Your task to perform on an android device: see creations saved in the google photos Image 0: 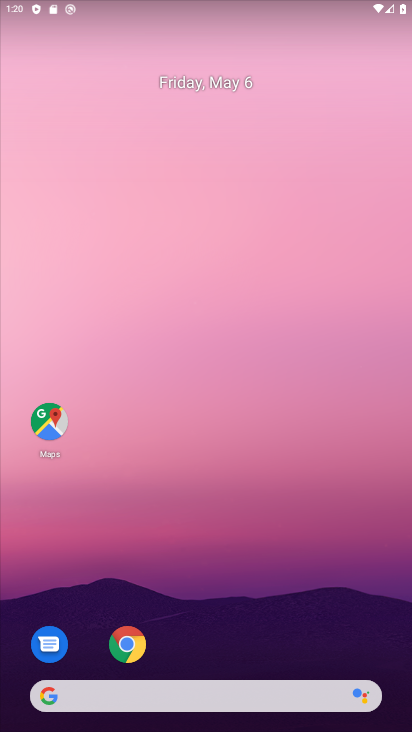
Step 0: drag from (218, 652) to (310, 114)
Your task to perform on an android device: see creations saved in the google photos Image 1: 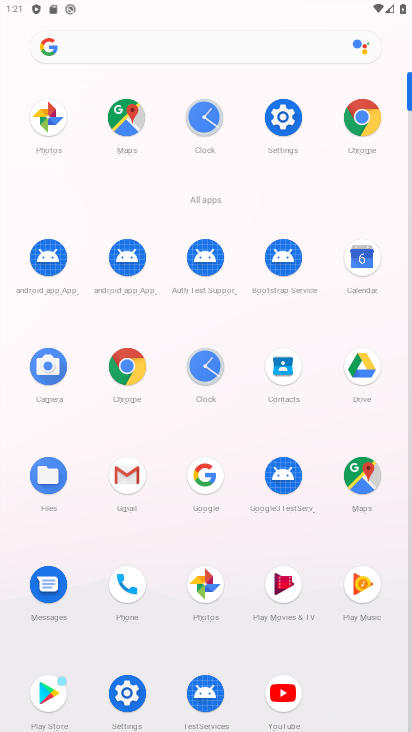
Step 1: click (208, 583)
Your task to perform on an android device: see creations saved in the google photos Image 2: 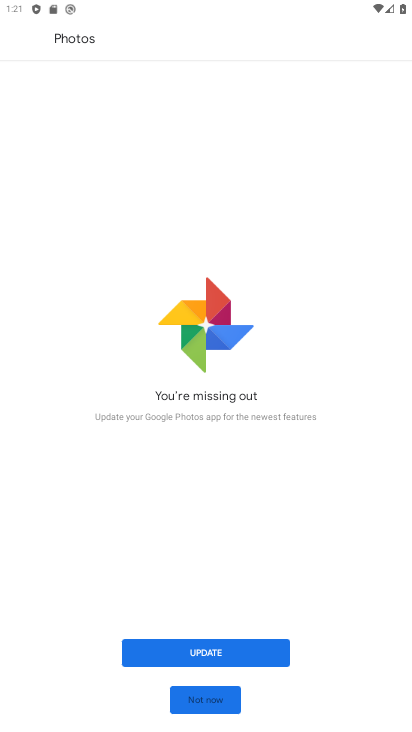
Step 2: click (212, 692)
Your task to perform on an android device: see creations saved in the google photos Image 3: 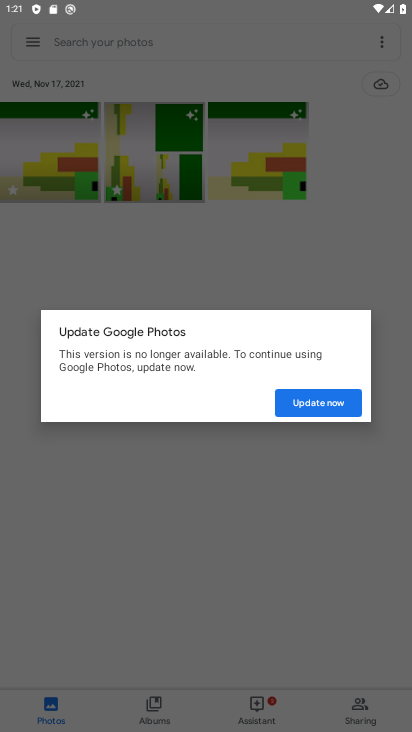
Step 3: click (312, 401)
Your task to perform on an android device: see creations saved in the google photos Image 4: 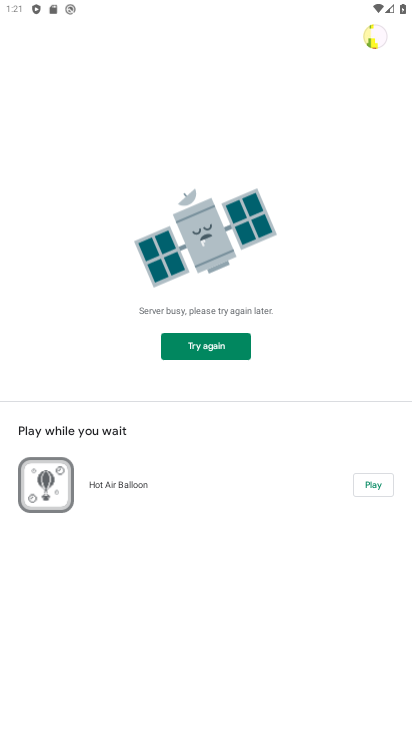
Step 4: click (213, 358)
Your task to perform on an android device: see creations saved in the google photos Image 5: 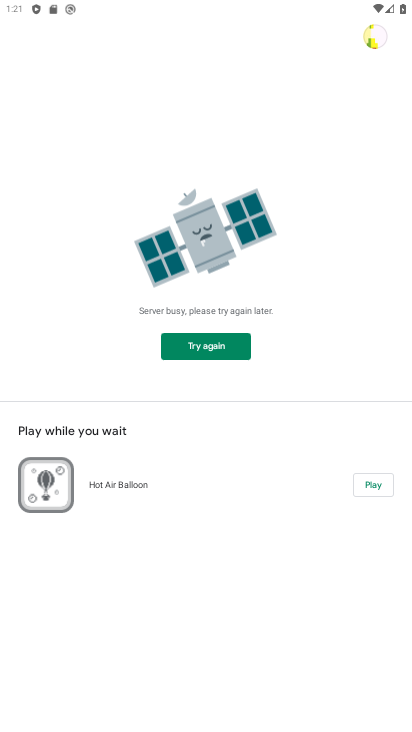
Step 5: click (207, 348)
Your task to perform on an android device: see creations saved in the google photos Image 6: 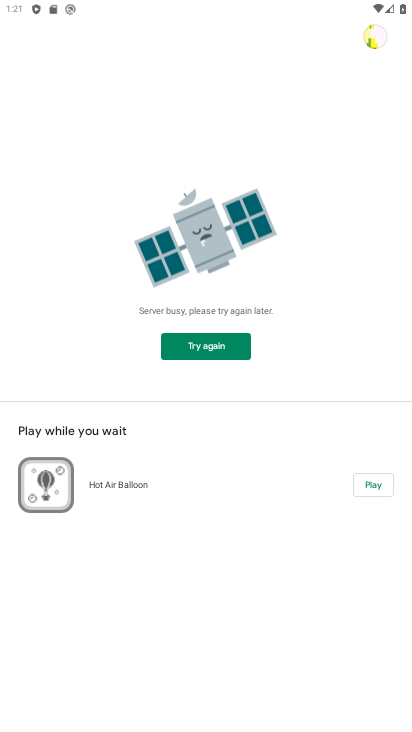
Step 6: click (201, 348)
Your task to perform on an android device: see creations saved in the google photos Image 7: 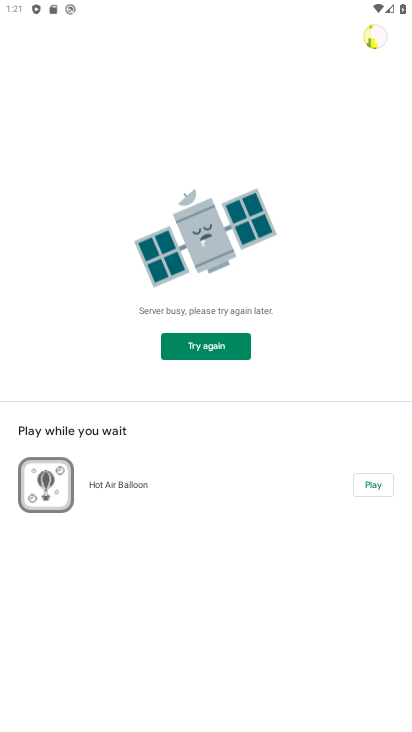
Step 7: press back button
Your task to perform on an android device: see creations saved in the google photos Image 8: 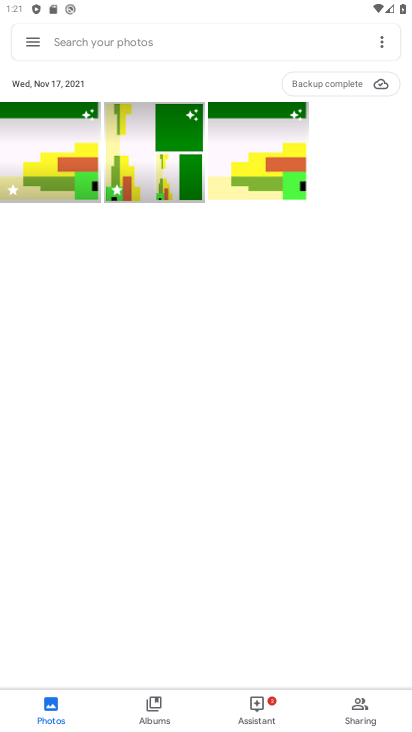
Step 8: click (32, 36)
Your task to perform on an android device: see creations saved in the google photos Image 9: 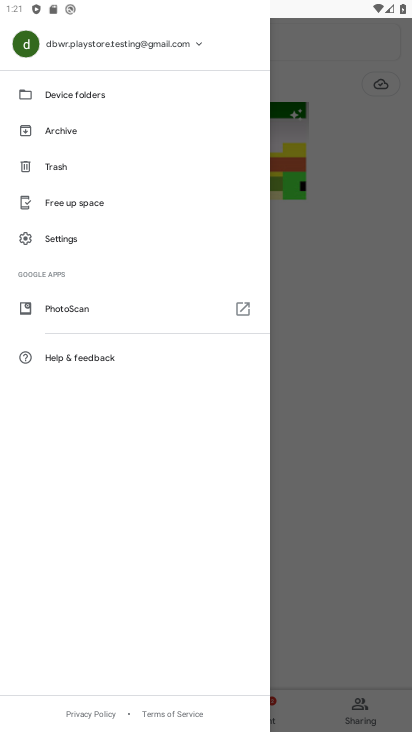
Step 9: click (71, 123)
Your task to perform on an android device: see creations saved in the google photos Image 10: 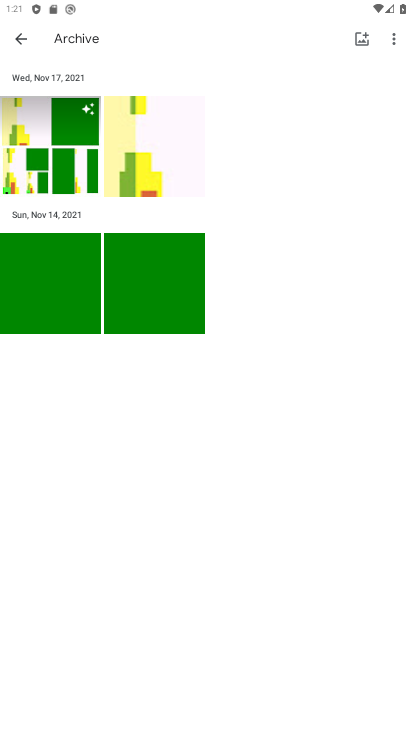
Step 10: task complete